Your task to perform on an android device: Open eBay Image 0: 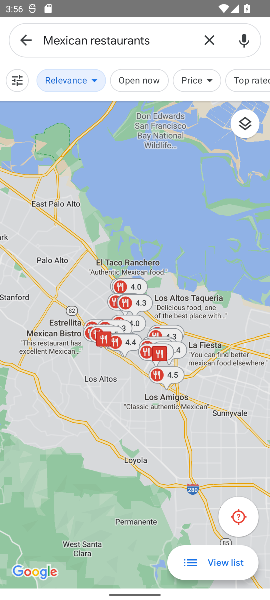
Step 0: task complete